Your task to perform on an android device: Is it going to rain this weekend? Image 0: 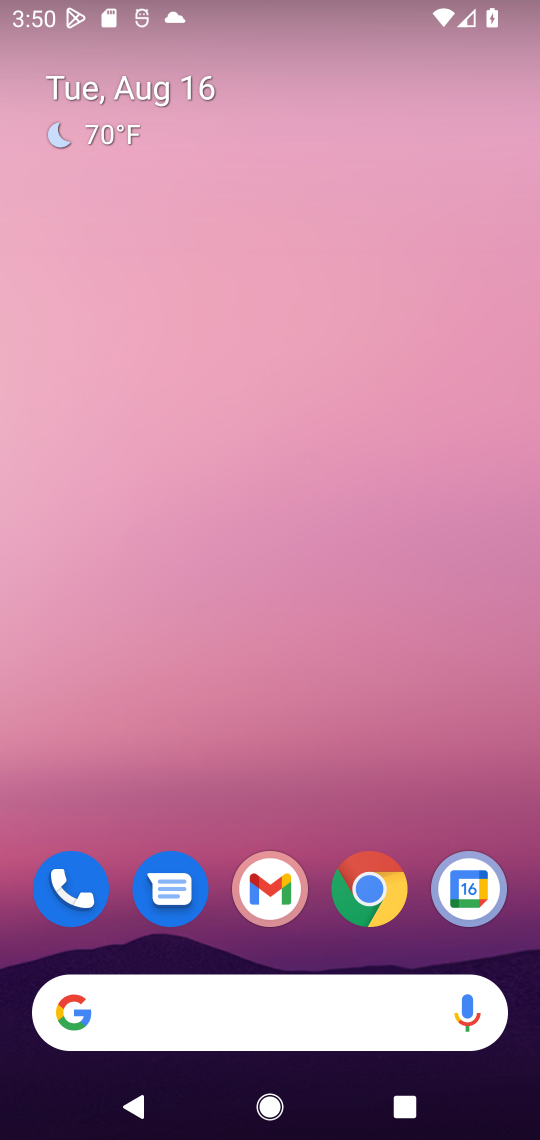
Step 0: click (490, 888)
Your task to perform on an android device: Is it going to rain this weekend? Image 1: 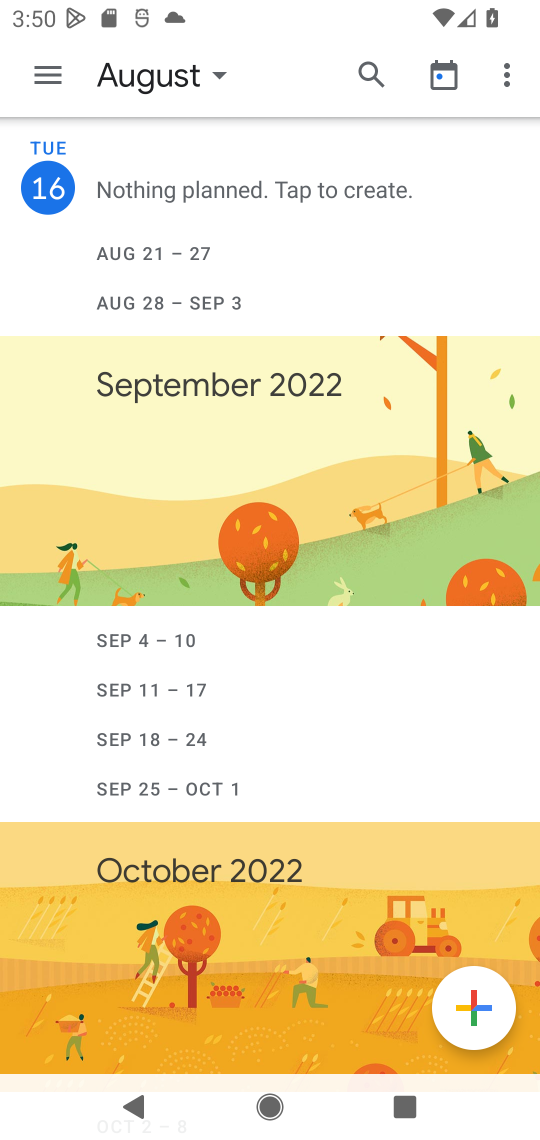
Step 1: task complete